Your task to perform on an android device: toggle javascript in the chrome app Image 0: 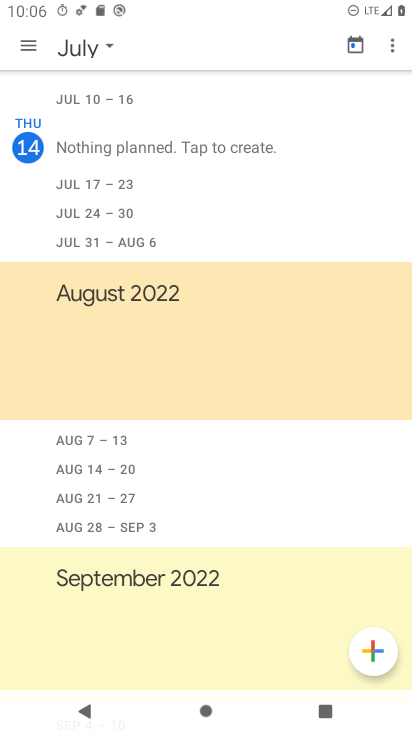
Step 0: press home button
Your task to perform on an android device: toggle javascript in the chrome app Image 1: 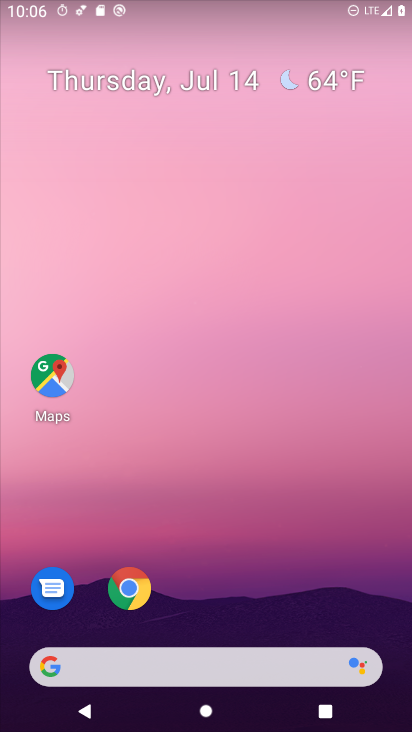
Step 1: drag from (305, 588) to (339, 121)
Your task to perform on an android device: toggle javascript in the chrome app Image 2: 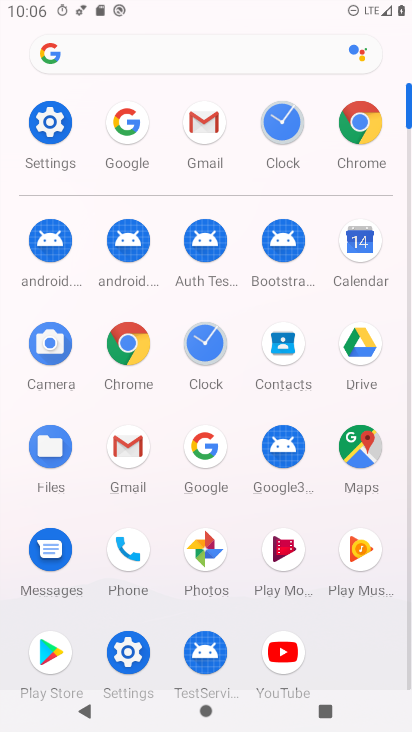
Step 2: click (360, 133)
Your task to perform on an android device: toggle javascript in the chrome app Image 3: 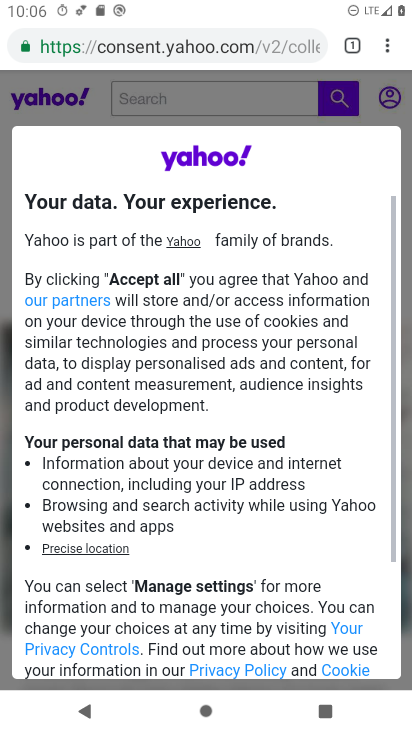
Step 3: click (388, 52)
Your task to perform on an android device: toggle javascript in the chrome app Image 4: 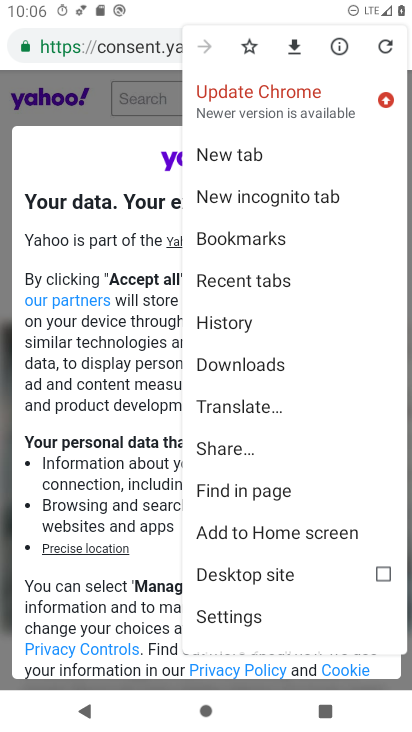
Step 4: drag from (332, 425) to (348, 311)
Your task to perform on an android device: toggle javascript in the chrome app Image 5: 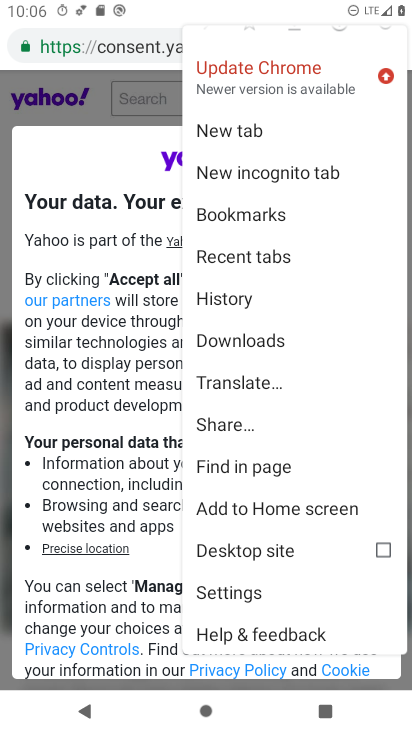
Step 5: drag from (364, 422) to (353, 251)
Your task to perform on an android device: toggle javascript in the chrome app Image 6: 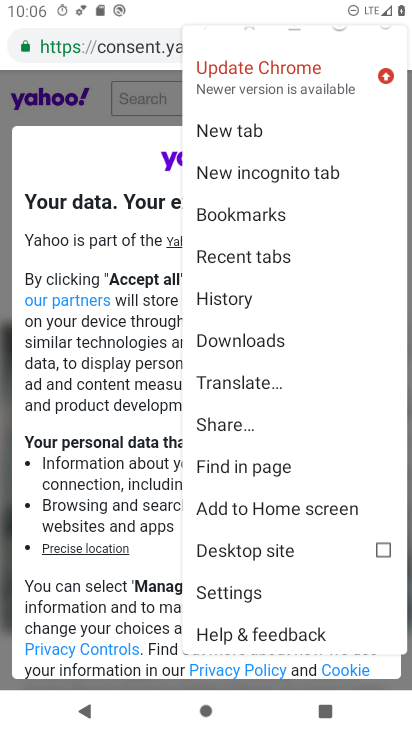
Step 6: click (292, 593)
Your task to perform on an android device: toggle javascript in the chrome app Image 7: 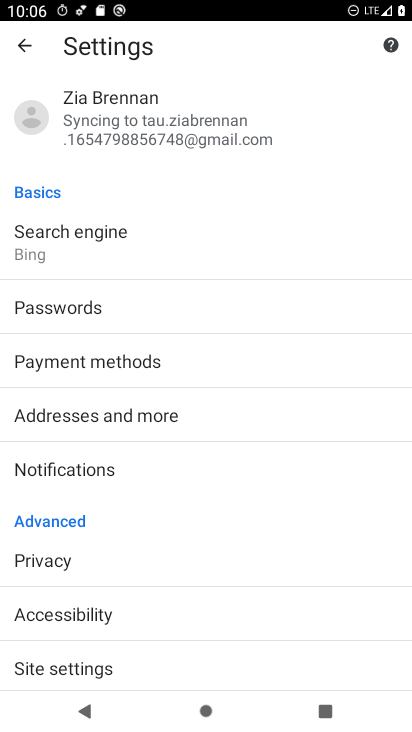
Step 7: drag from (331, 554) to (331, 494)
Your task to perform on an android device: toggle javascript in the chrome app Image 8: 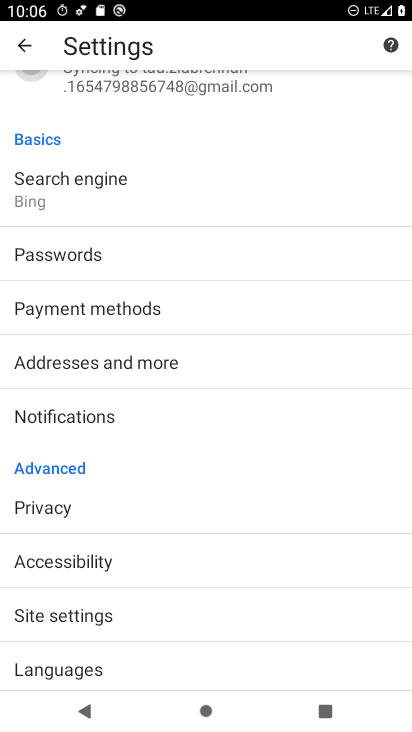
Step 8: drag from (345, 576) to (345, 490)
Your task to perform on an android device: toggle javascript in the chrome app Image 9: 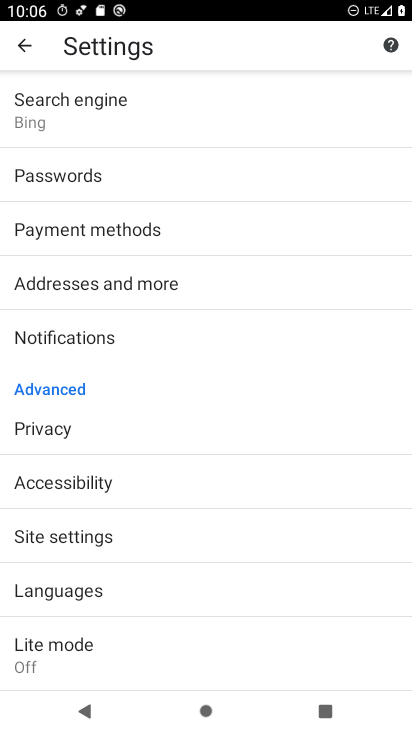
Step 9: drag from (331, 564) to (328, 408)
Your task to perform on an android device: toggle javascript in the chrome app Image 10: 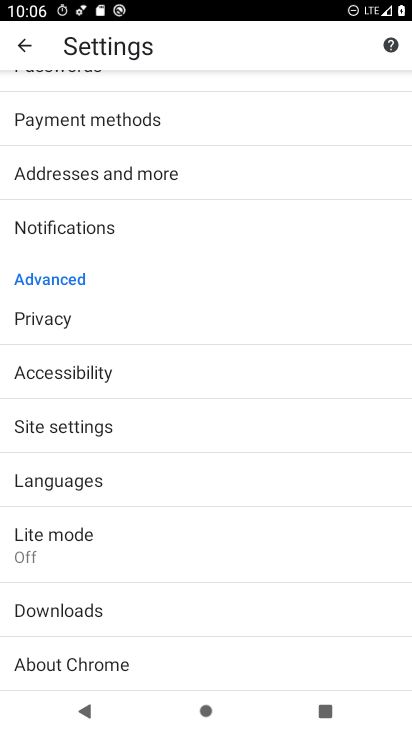
Step 10: click (280, 432)
Your task to perform on an android device: toggle javascript in the chrome app Image 11: 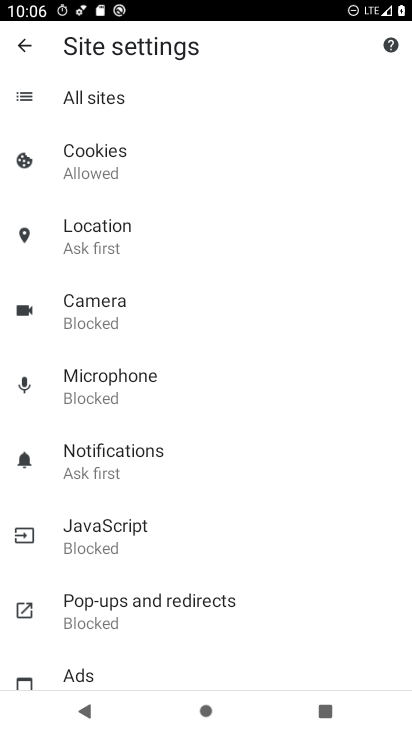
Step 11: drag from (305, 523) to (310, 428)
Your task to perform on an android device: toggle javascript in the chrome app Image 12: 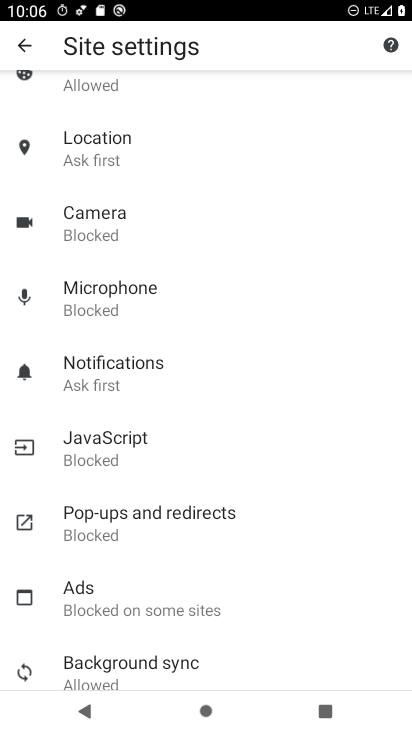
Step 12: drag from (335, 506) to (340, 437)
Your task to perform on an android device: toggle javascript in the chrome app Image 13: 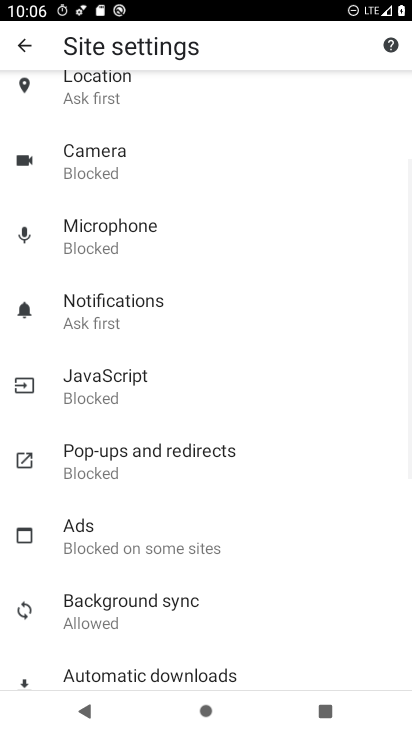
Step 13: drag from (352, 548) to (348, 456)
Your task to perform on an android device: toggle javascript in the chrome app Image 14: 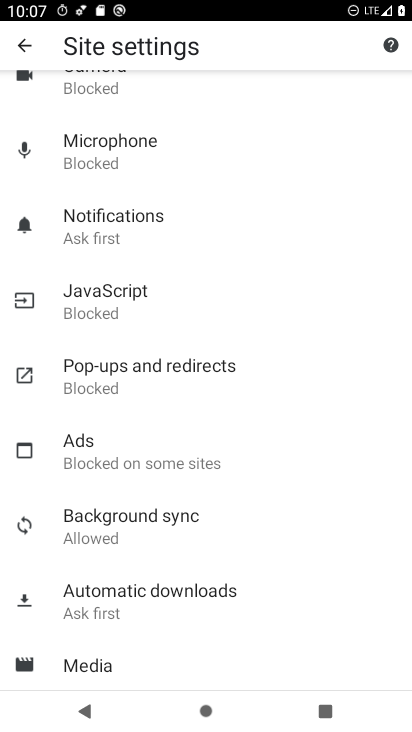
Step 14: drag from (328, 580) to (340, 470)
Your task to perform on an android device: toggle javascript in the chrome app Image 15: 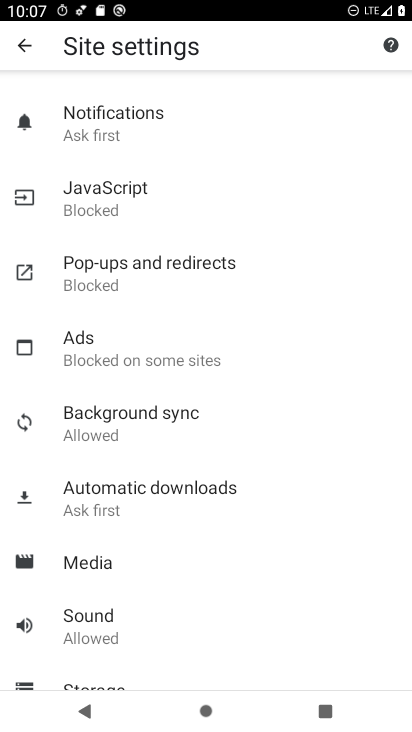
Step 15: drag from (347, 569) to (353, 481)
Your task to perform on an android device: toggle javascript in the chrome app Image 16: 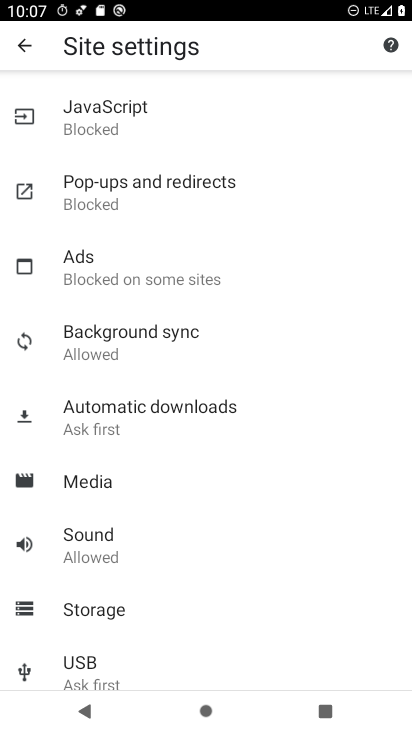
Step 16: drag from (334, 550) to (337, 464)
Your task to perform on an android device: toggle javascript in the chrome app Image 17: 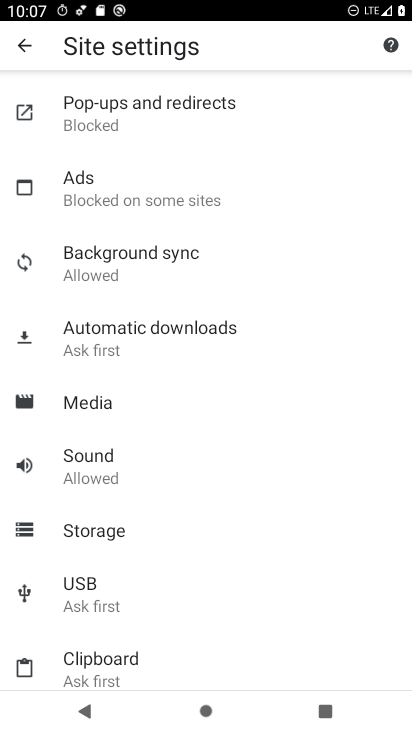
Step 17: drag from (317, 313) to (322, 455)
Your task to perform on an android device: toggle javascript in the chrome app Image 18: 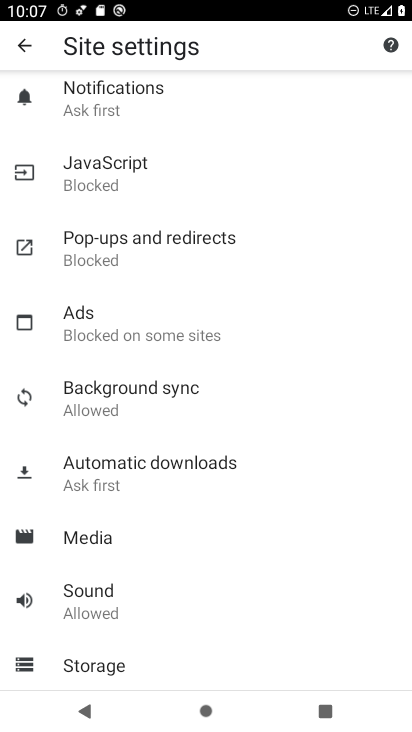
Step 18: drag from (319, 287) to (327, 431)
Your task to perform on an android device: toggle javascript in the chrome app Image 19: 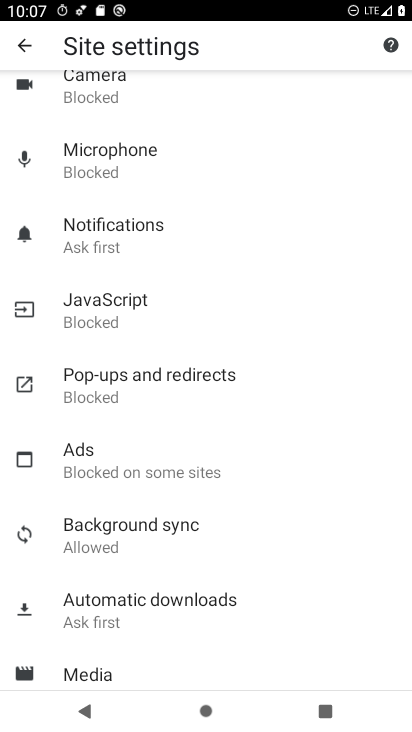
Step 19: click (219, 315)
Your task to perform on an android device: toggle javascript in the chrome app Image 20: 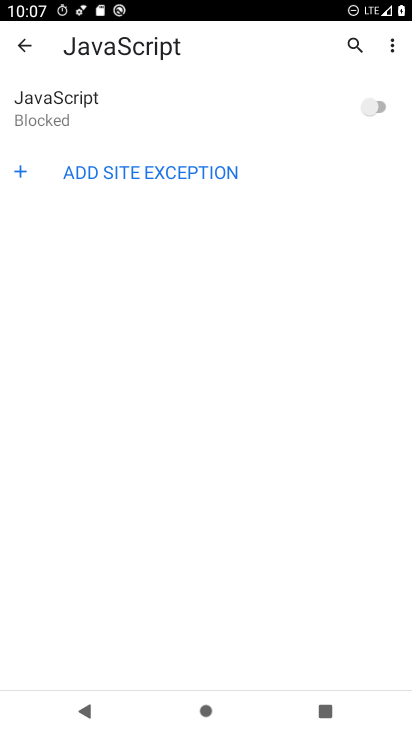
Step 20: click (364, 107)
Your task to perform on an android device: toggle javascript in the chrome app Image 21: 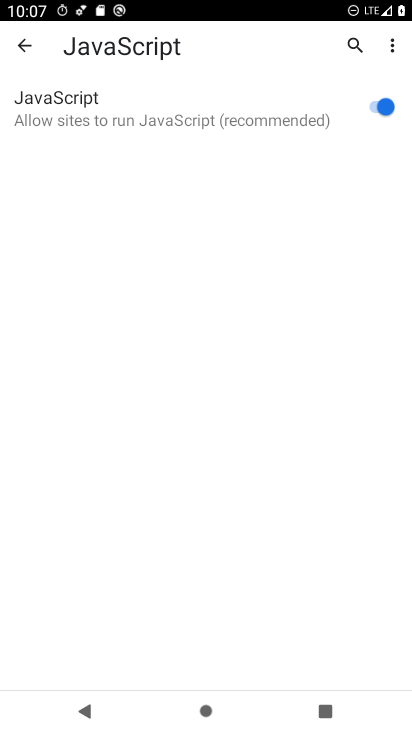
Step 21: task complete